Your task to perform on an android device: Open network settings Image 0: 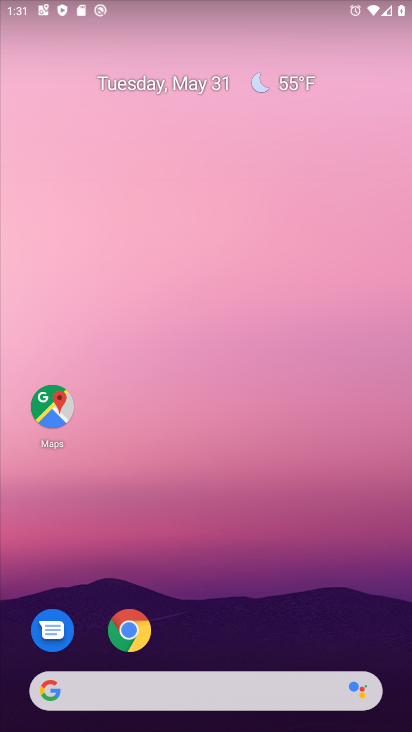
Step 0: drag from (200, 671) to (252, 6)
Your task to perform on an android device: Open network settings Image 1: 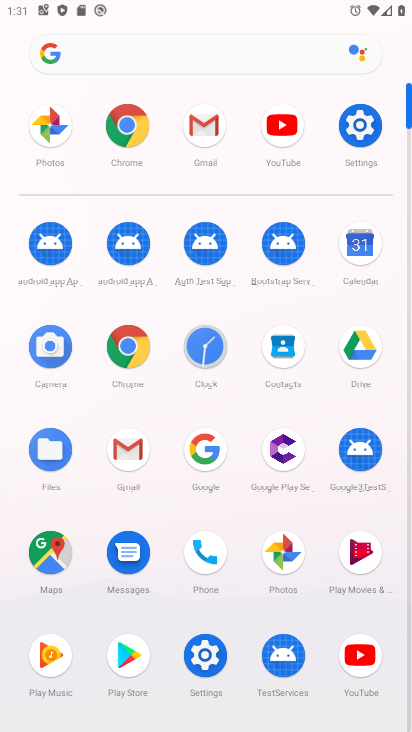
Step 1: click (357, 132)
Your task to perform on an android device: Open network settings Image 2: 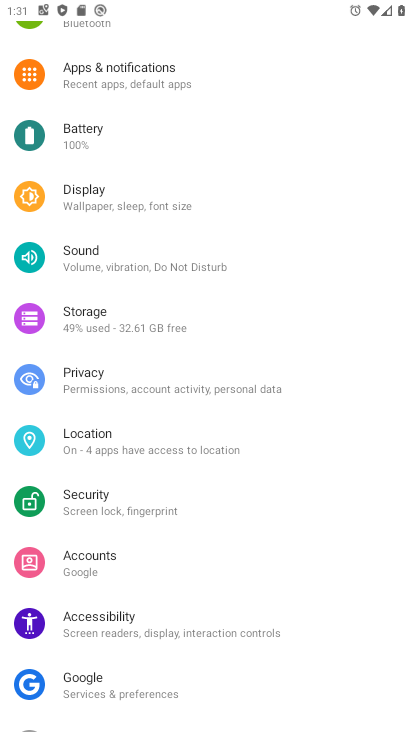
Step 2: drag from (141, 77) to (192, 484)
Your task to perform on an android device: Open network settings Image 3: 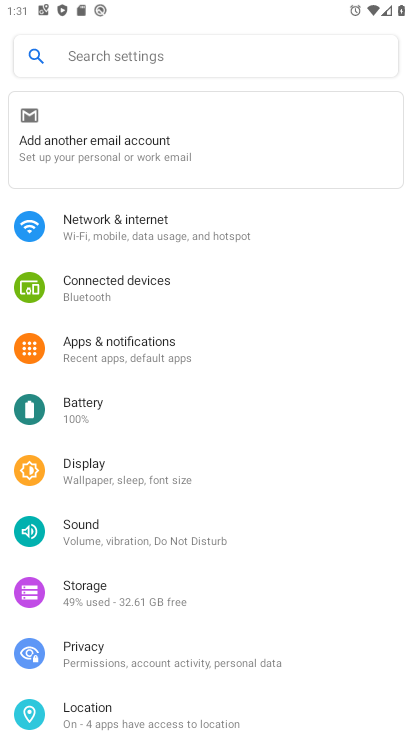
Step 3: click (140, 237)
Your task to perform on an android device: Open network settings Image 4: 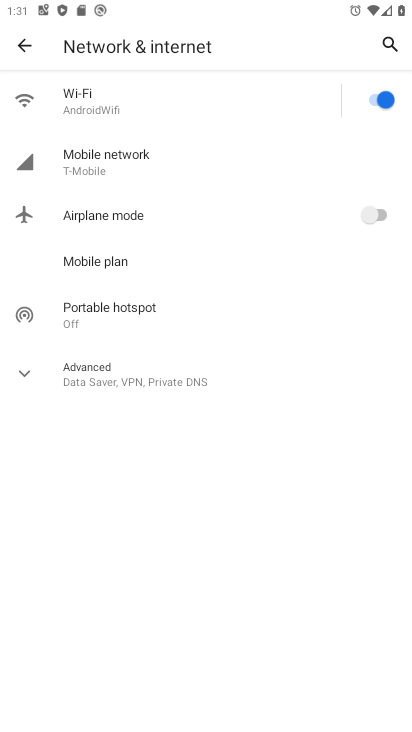
Step 4: click (90, 370)
Your task to perform on an android device: Open network settings Image 5: 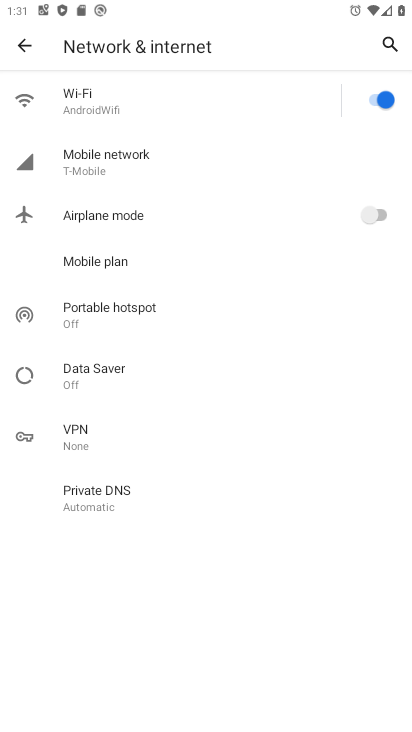
Step 5: task complete